Your task to perform on an android device: turn notification dots off Image 0: 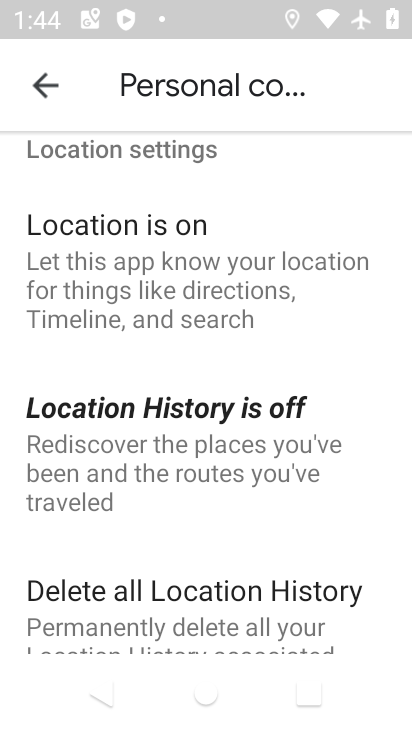
Step 0: press home button
Your task to perform on an android device: turn notification dots off Image 1: 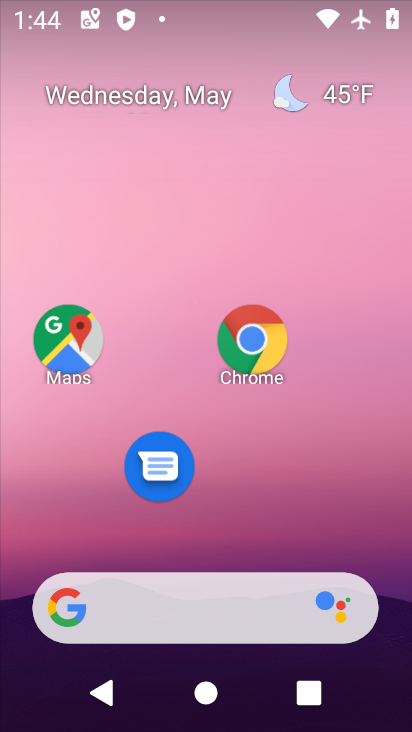
Step 1: drag from (141, 598) to (293, 119)
Your task to perform on an android device: turn notification dots off Image 2: 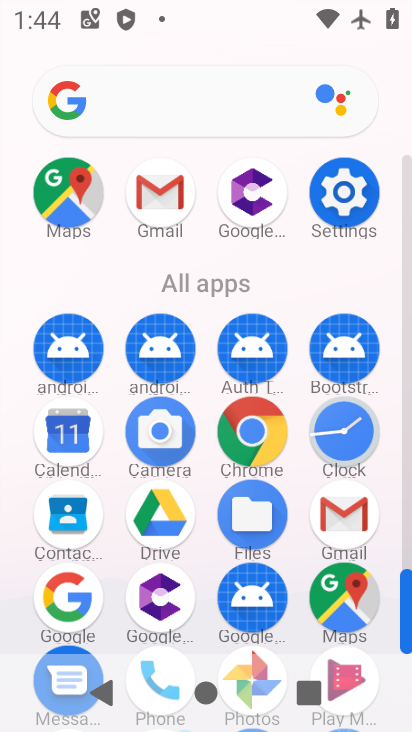
Step 2: click (347, 179)
Your task to perform on an android device: turn notification dots off Image 3: 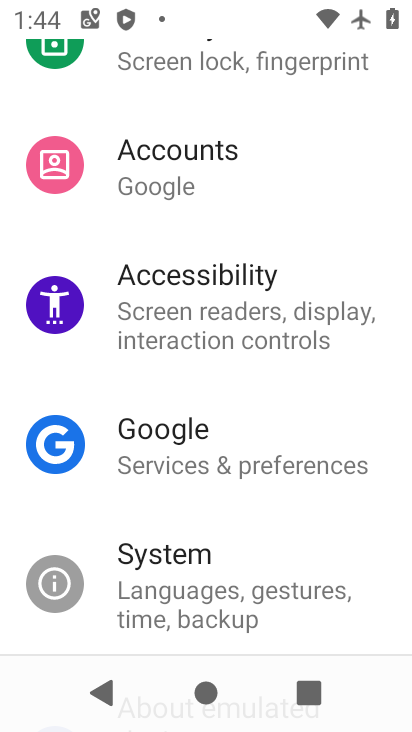
Step 3: drag from (313, 150) to (241, 655)
Your task to perform on an android device: turn notification dots off Image 4: 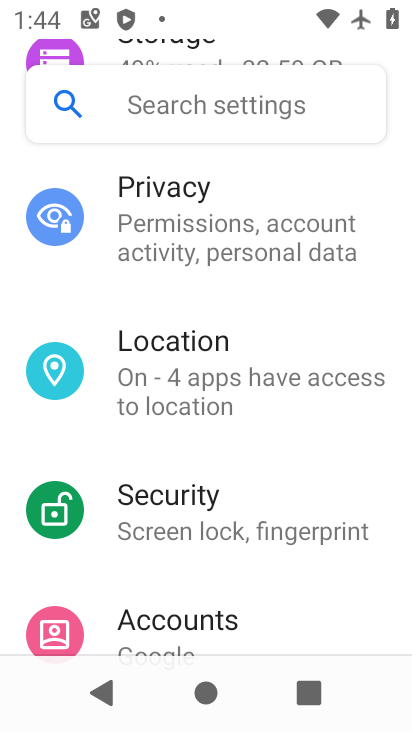
Step 4: drag from (286, 178) to (244, 626)
Your task to perform on an android device: turn notification dots off Image 5: 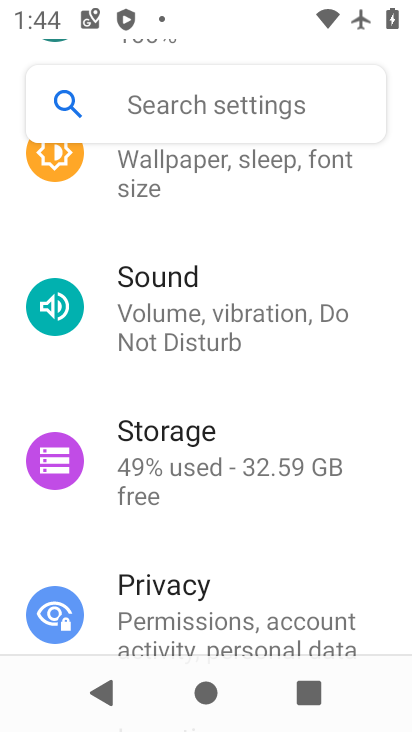
Step 5: drag from (284, 221) to (245, 592)
Your task to perform on an android device: turn notification dots off Image 6: 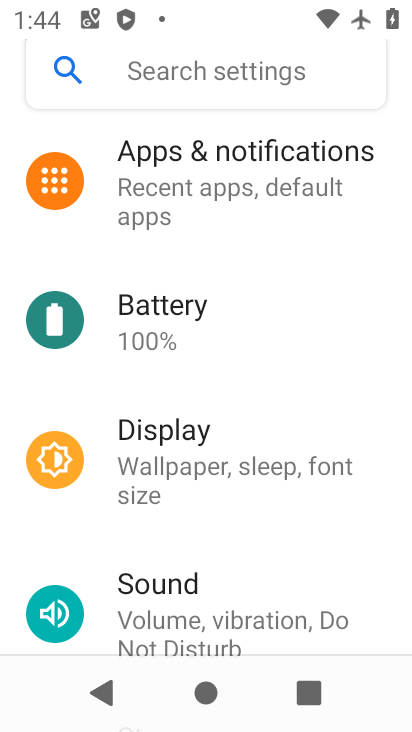
Step 6: click (278, 153)
Your task to perform on an android device: turn notification dots off Image 7: 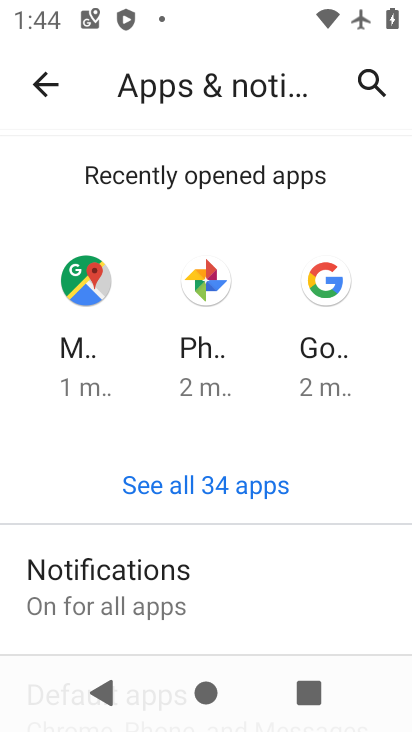
Step 7: drag from (228, 591) to (366, 52)
Your task to perform on an android device: turn notification dots off Image 8: 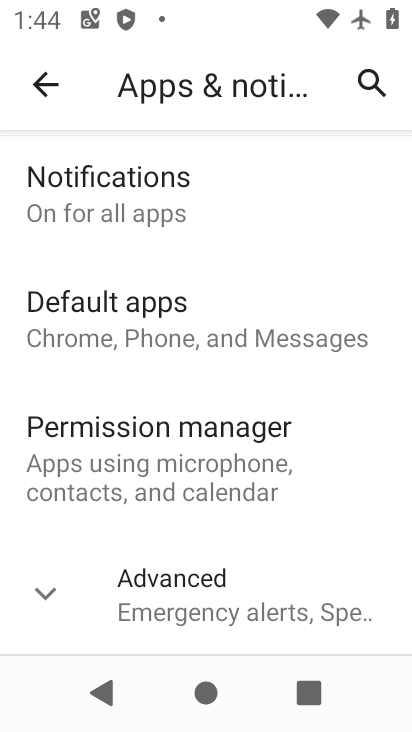
Step 8: click (139, 580)
Your task to perform on an android device: turn notification dots off Image 9: 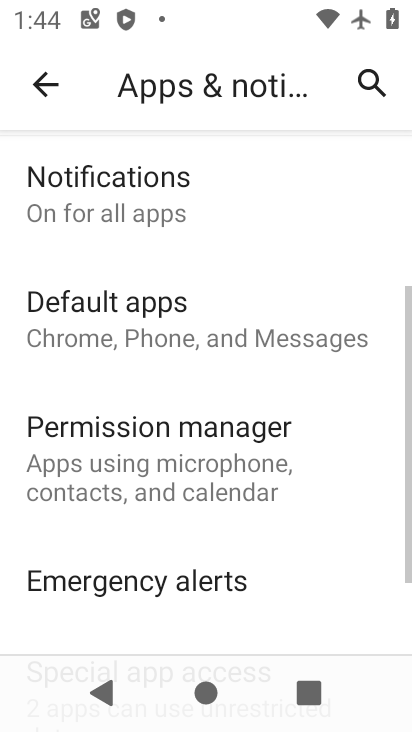
Step 9: drag from (261, 541) to (367, 86)
Your task to perform on an android device: turn notification dots off Image 10: 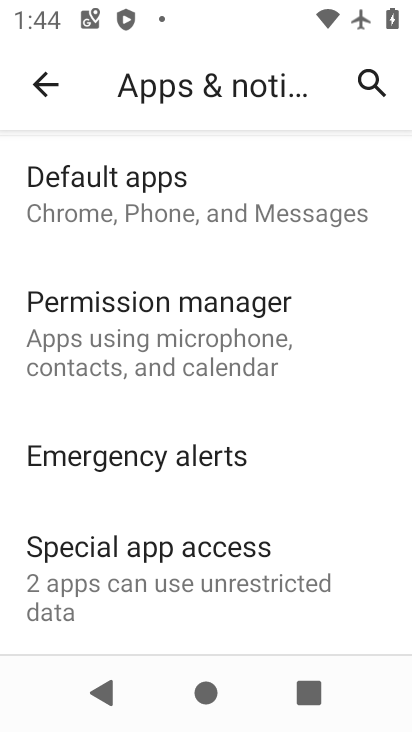
Step 10: drag from (247, 566) to (227, 633)
Your task to perform on an android device: turn notification dots off Image 11: 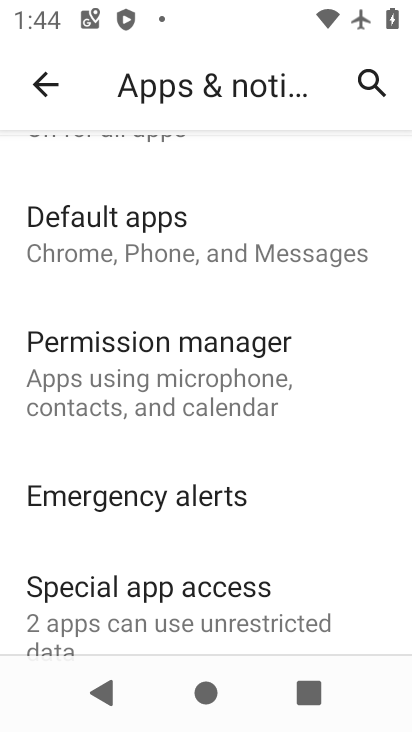
Step 11: drag from (284, 174) to (232, 601)
Your task to perform on an android device: turn notification dots off Image 12: 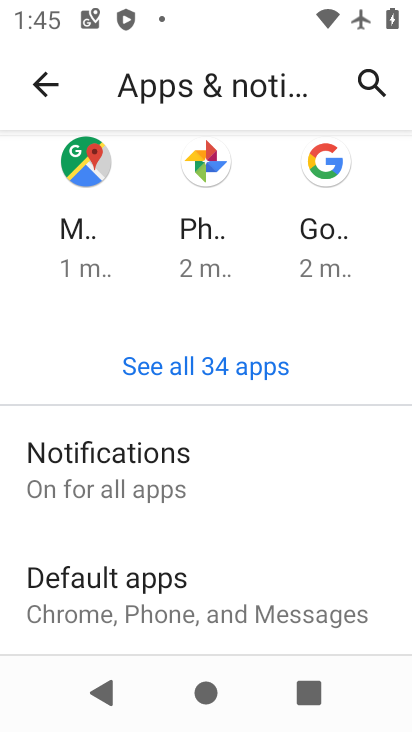
Step 12: click (139, 473)
Your task to perform on an android device: turn notification dots off Image 13: 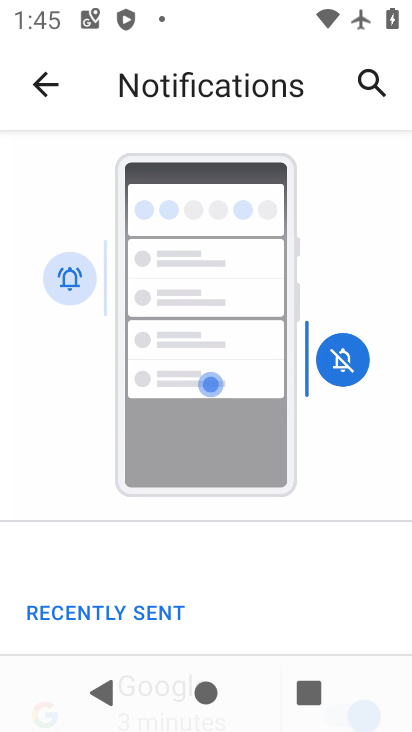
Step 13: drag from (199, 603) to (342, 131)
Your task to perform on an android device: turn notification dots off Image 14: 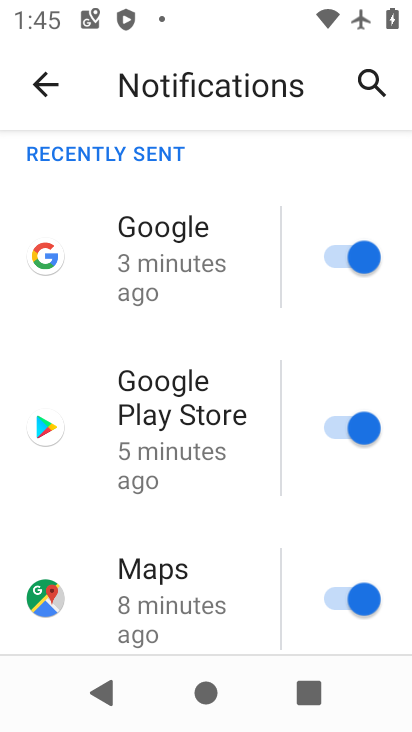
Step 14: drag from (183, 565) to (316, 111)
Your task to perform on an android device: turn notification dots off Image 15: 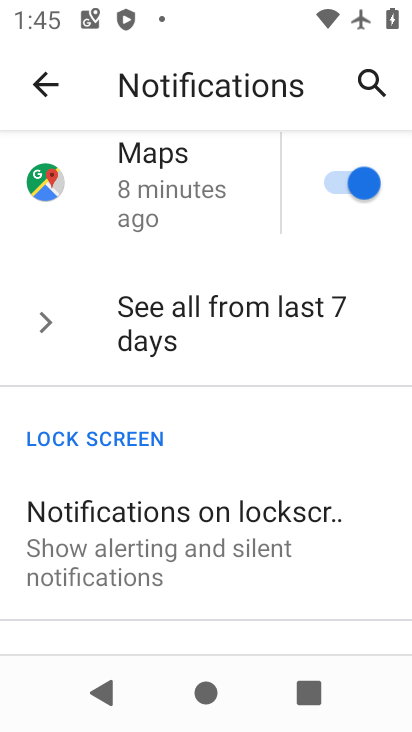
Step 15: drag from (214, 433) to (365, 100)
Your task to perform on an android device: turn notification dots off Image 16: 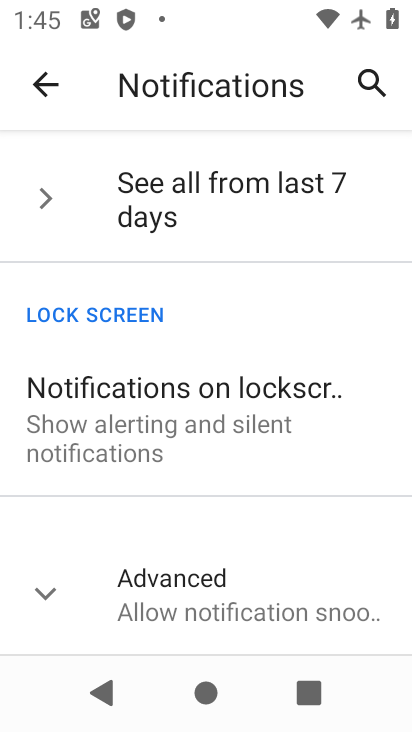
Step 16: click (172, 597)
Your task to perform on an android device: turn notification dots off Image 17: 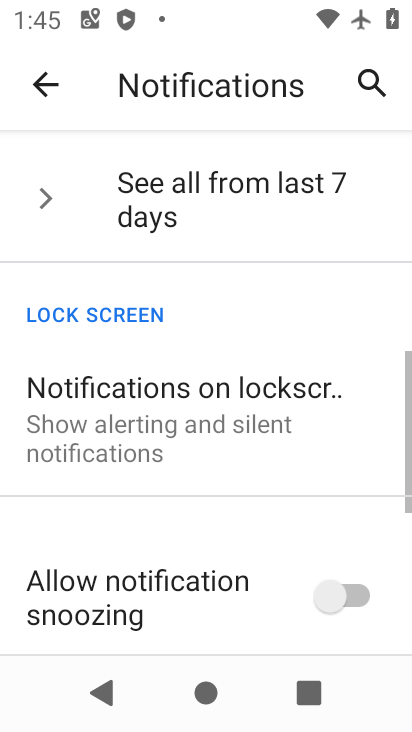
Step 17: drag from (219, 546) to (405, 129)
Your task to perform on an android device: turn notification dots off Image 18: 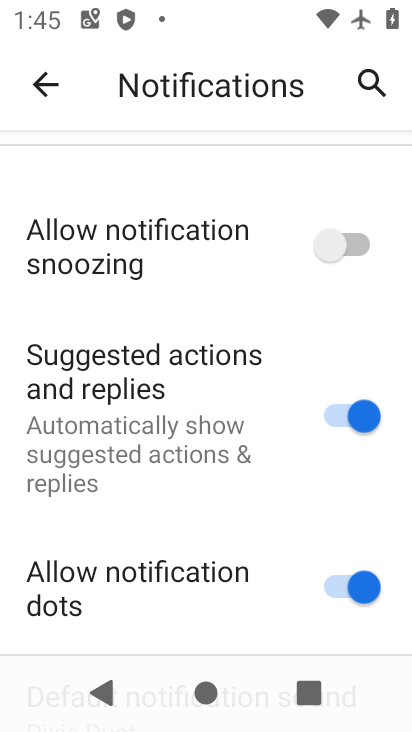
Step 18: click (341, 591)
Your task to perform on an android device: turn notification dots off Image 19: 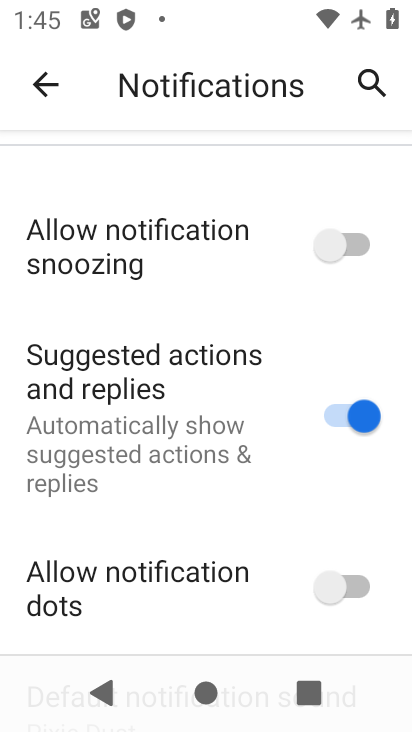
Step 19: task complete